Your task to perform on an android device: What's the time? Image 0: 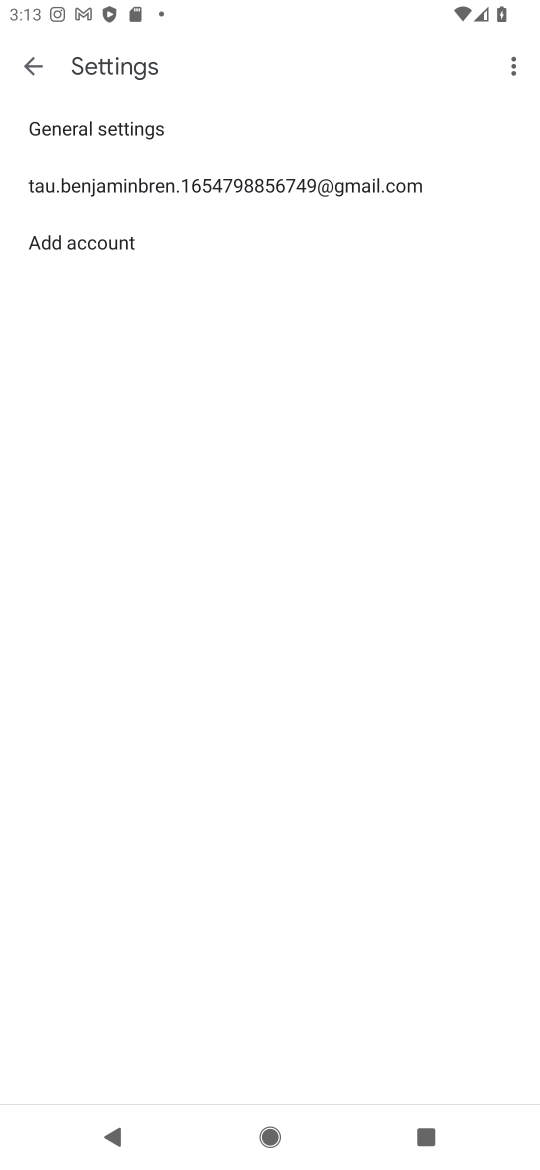
Step 0: press home button
Your task to perform on an android device: What's the time? Image 1: 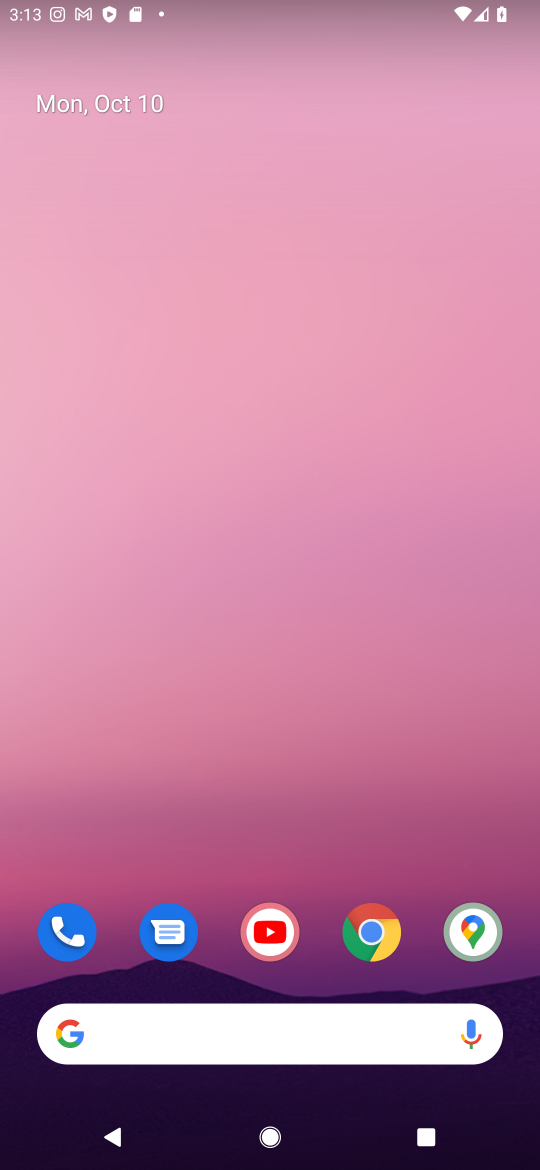
Step 1: click (399, 1037)
Your task to perform on an android device: What's the time? Image 2: 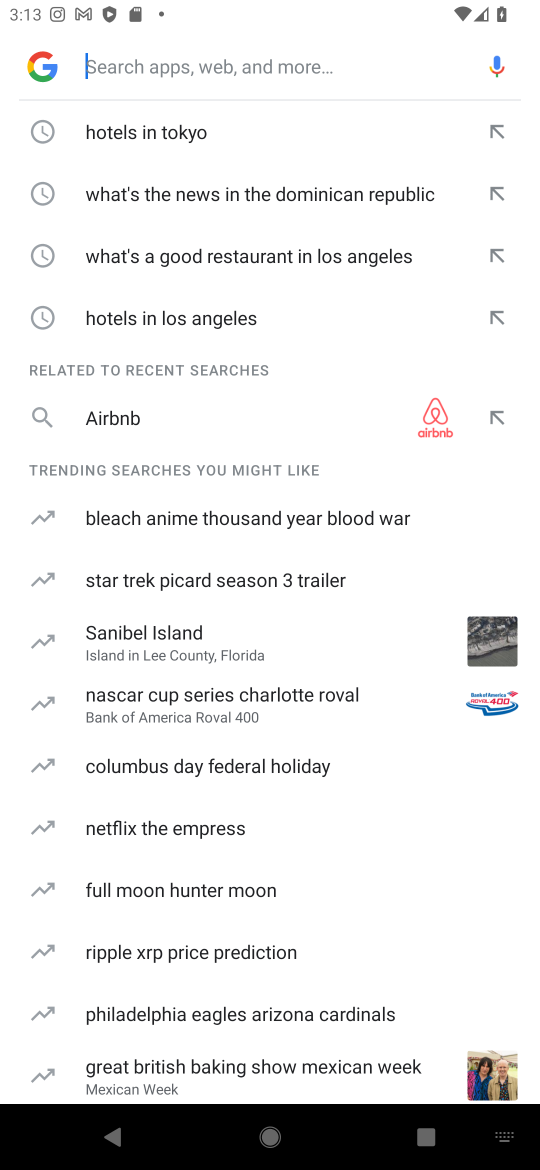
Step 2: type "What's the time"
Your task to perform on an android device: What's the time? Image 3: 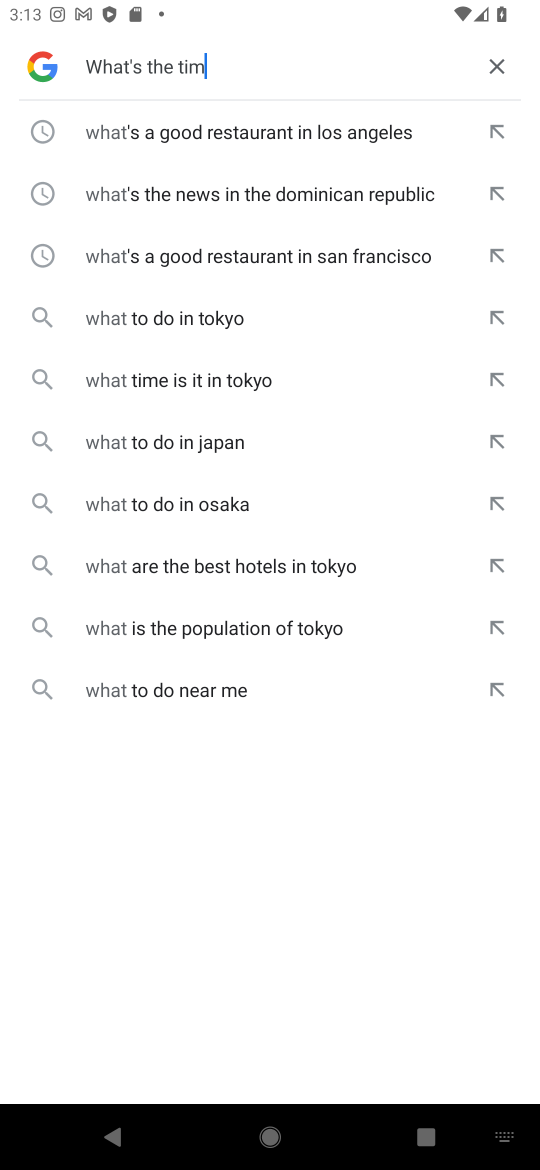
Step 3: press enter
Your task to perform on an android device: What's the time? Image 4: 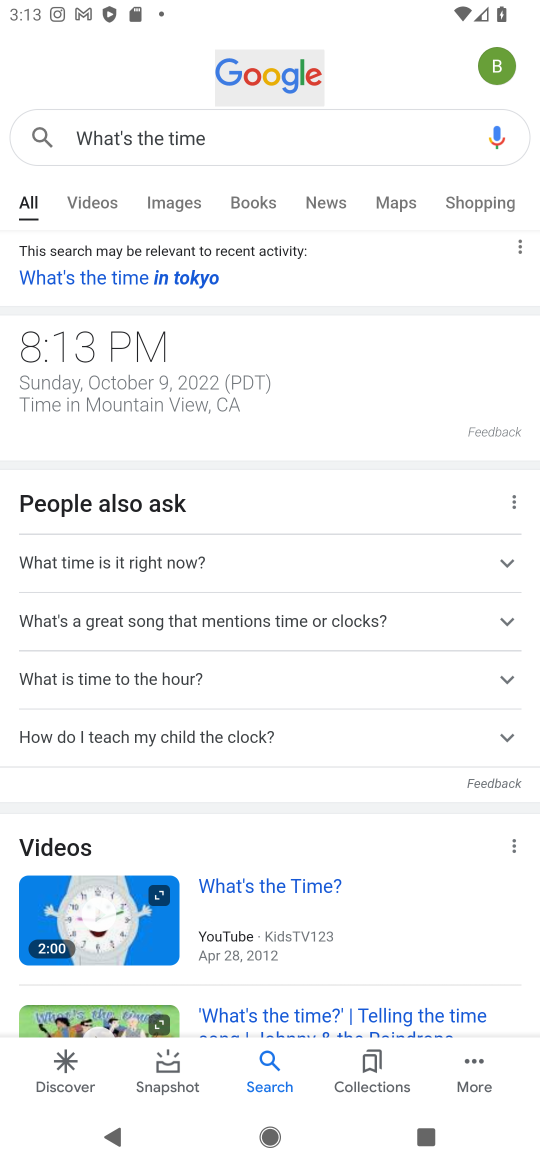
Step 4: task complete